Your task to perform on an android device: open app "ZOOM Cloud Meetings" Image 0: 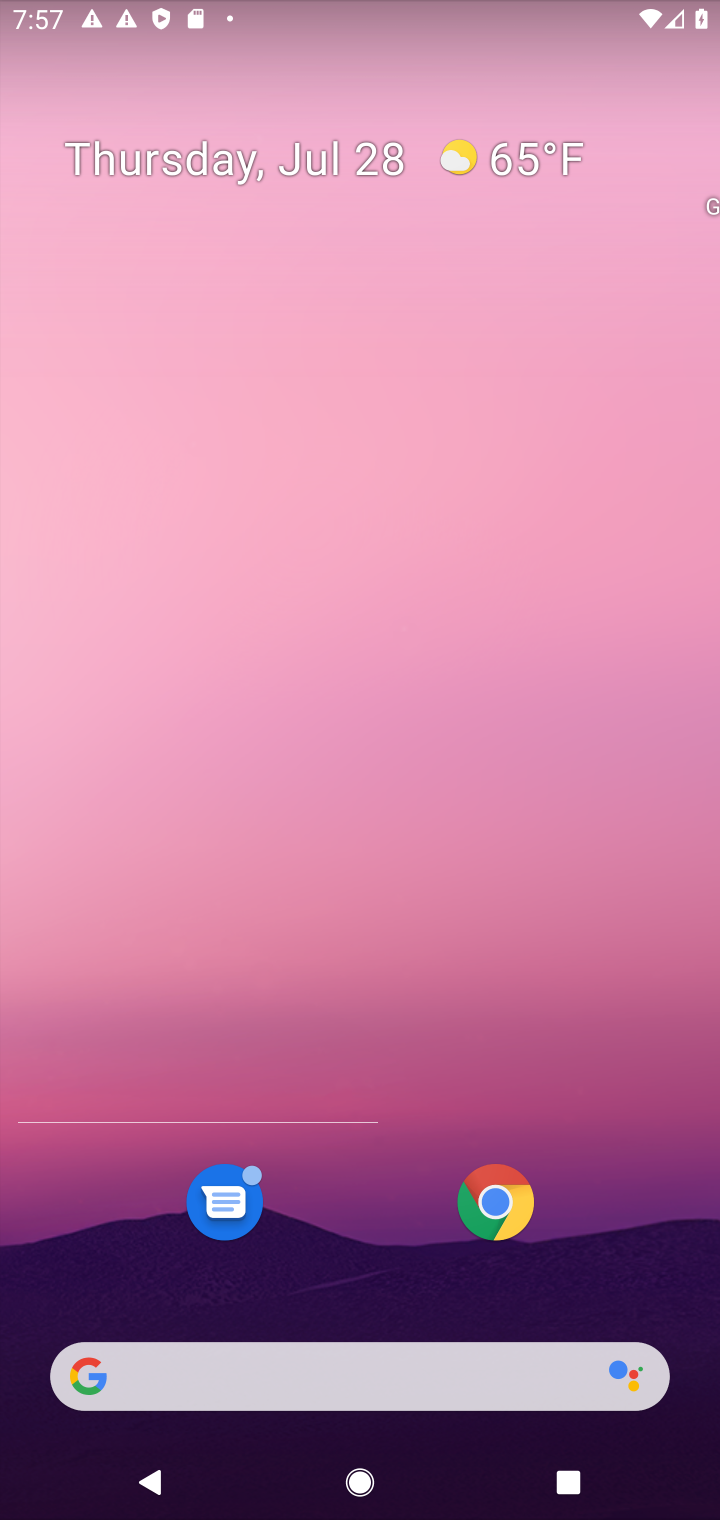
Step 0: press home button
Your task to perform on an android device: open app "ZOOM Cloud Meetings" Image 1: 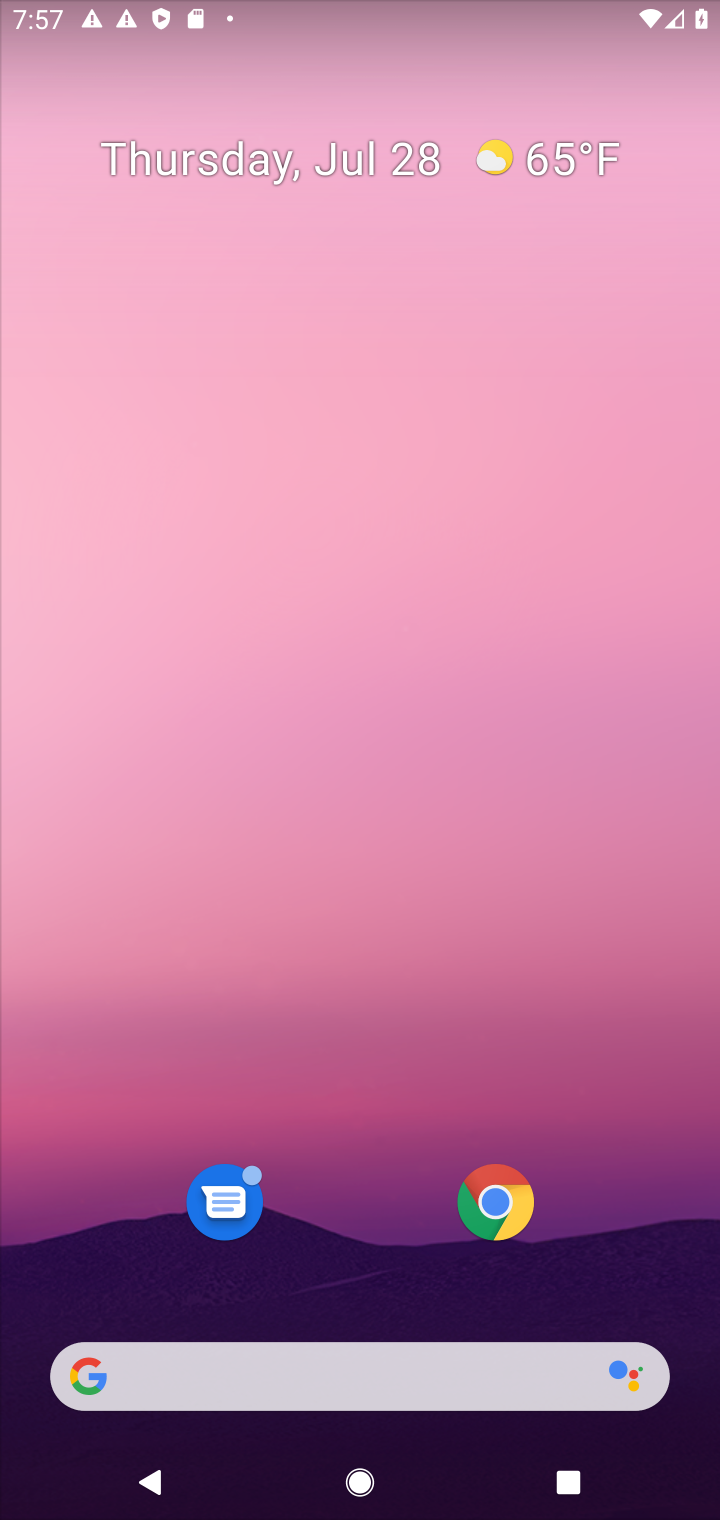
Step 1: drag from (391, 1298) to (533, 115)
Your task to perform on an android device: open app "ZOOM Cloud Meetings" Image 2: 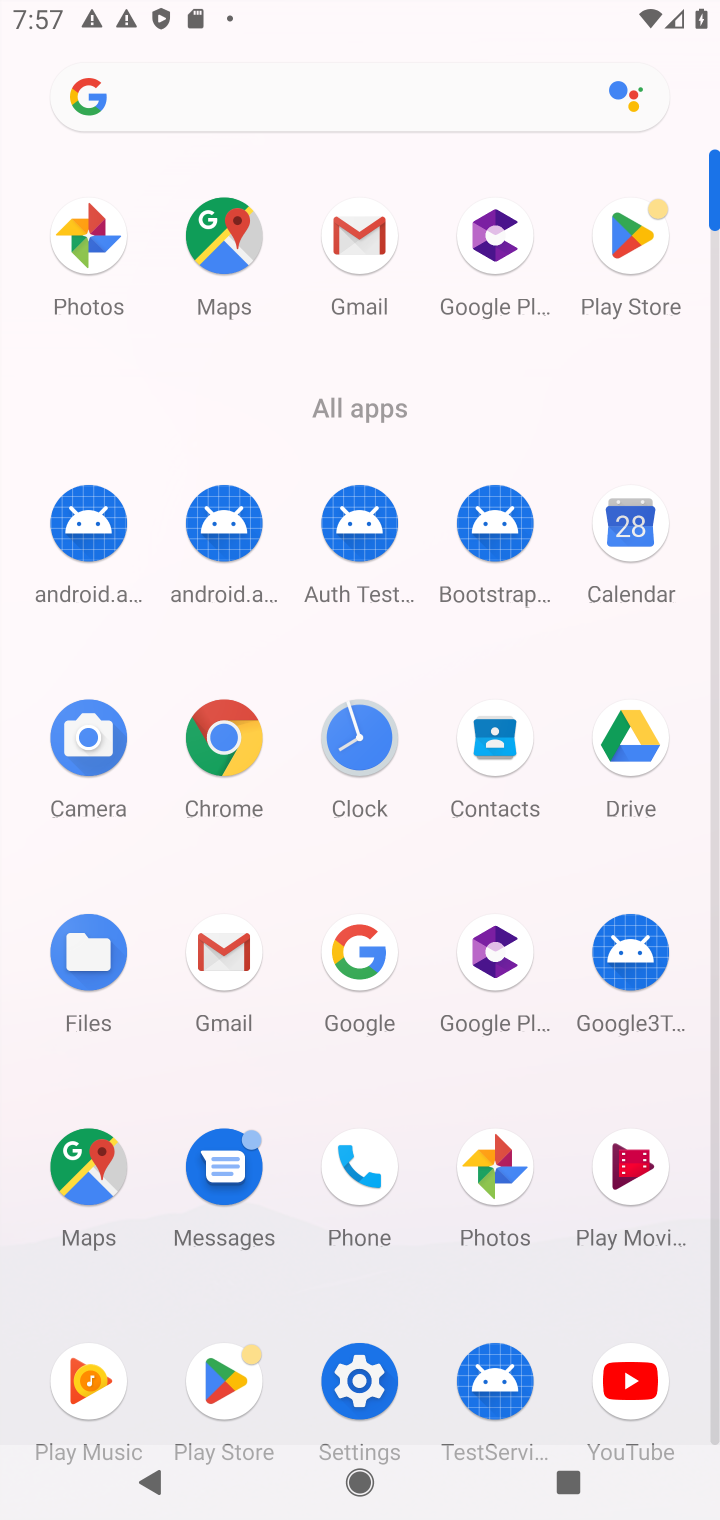
Step 2: click (634, 223)
Your task to perform on an android device: open app "ZOOM Cloud Meetings" Image 3: 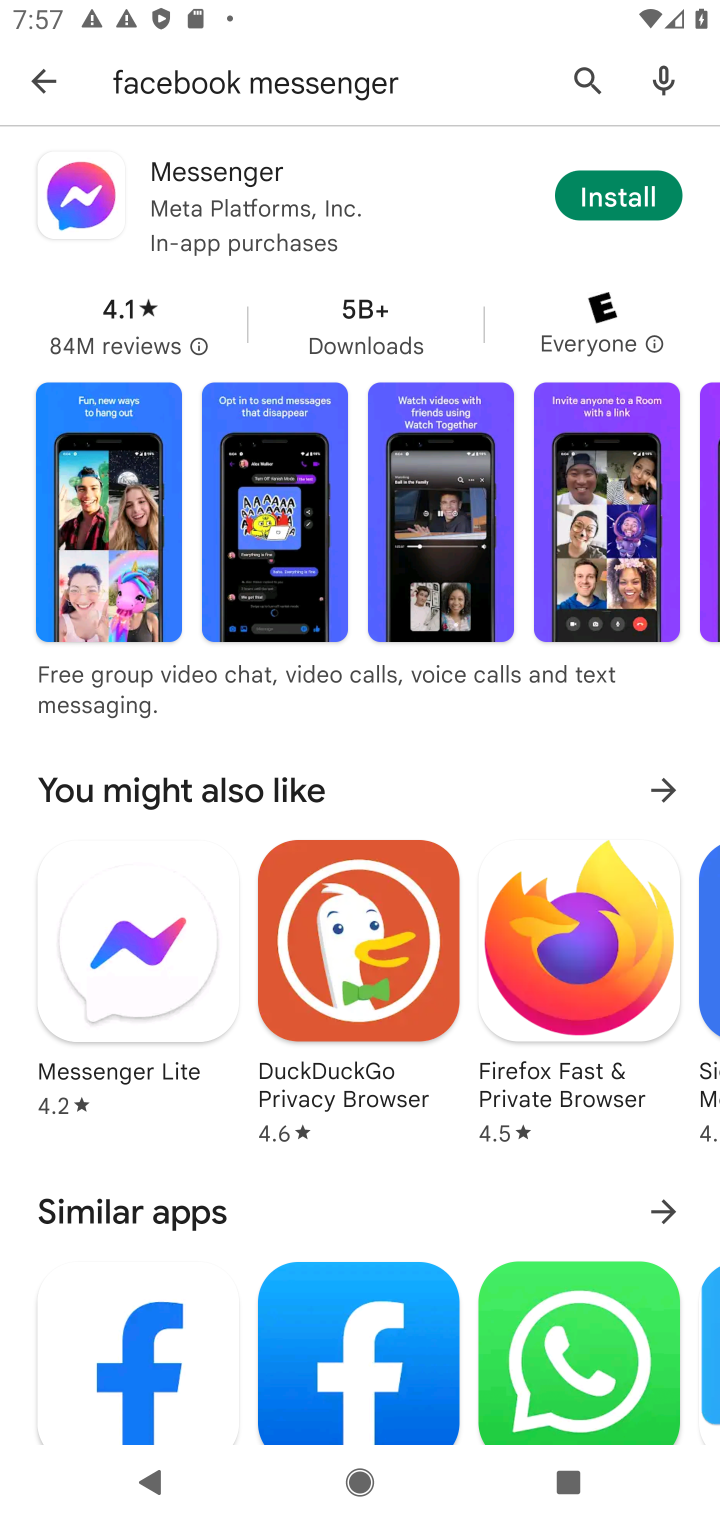
Step 3: click (577, 77)
Your task to perform on an android device: open app "ZOOM Cloud Meetings" Image 4: 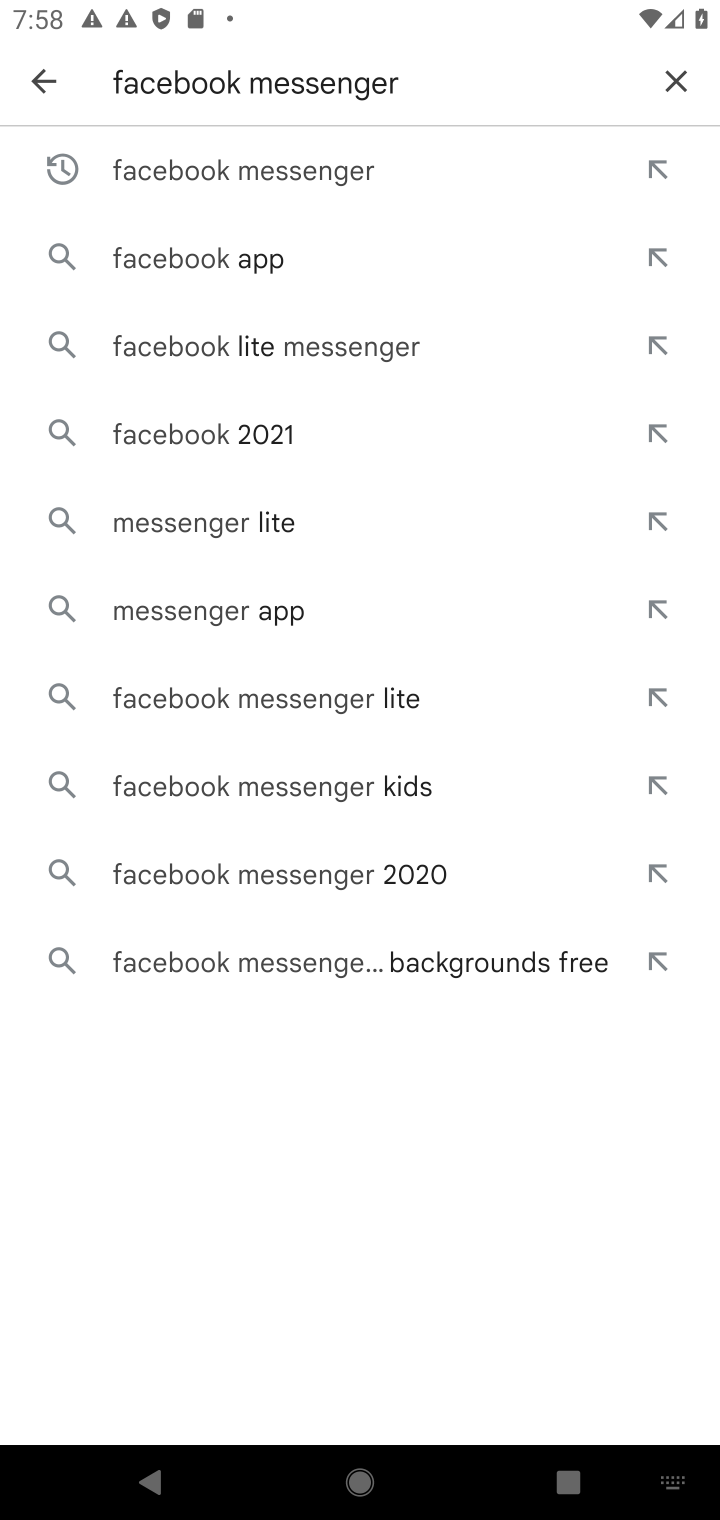
Step 4: click (672, 83)
Your task to perform on an android device: open app "ZOOM Cloud Meetings" Image 5: 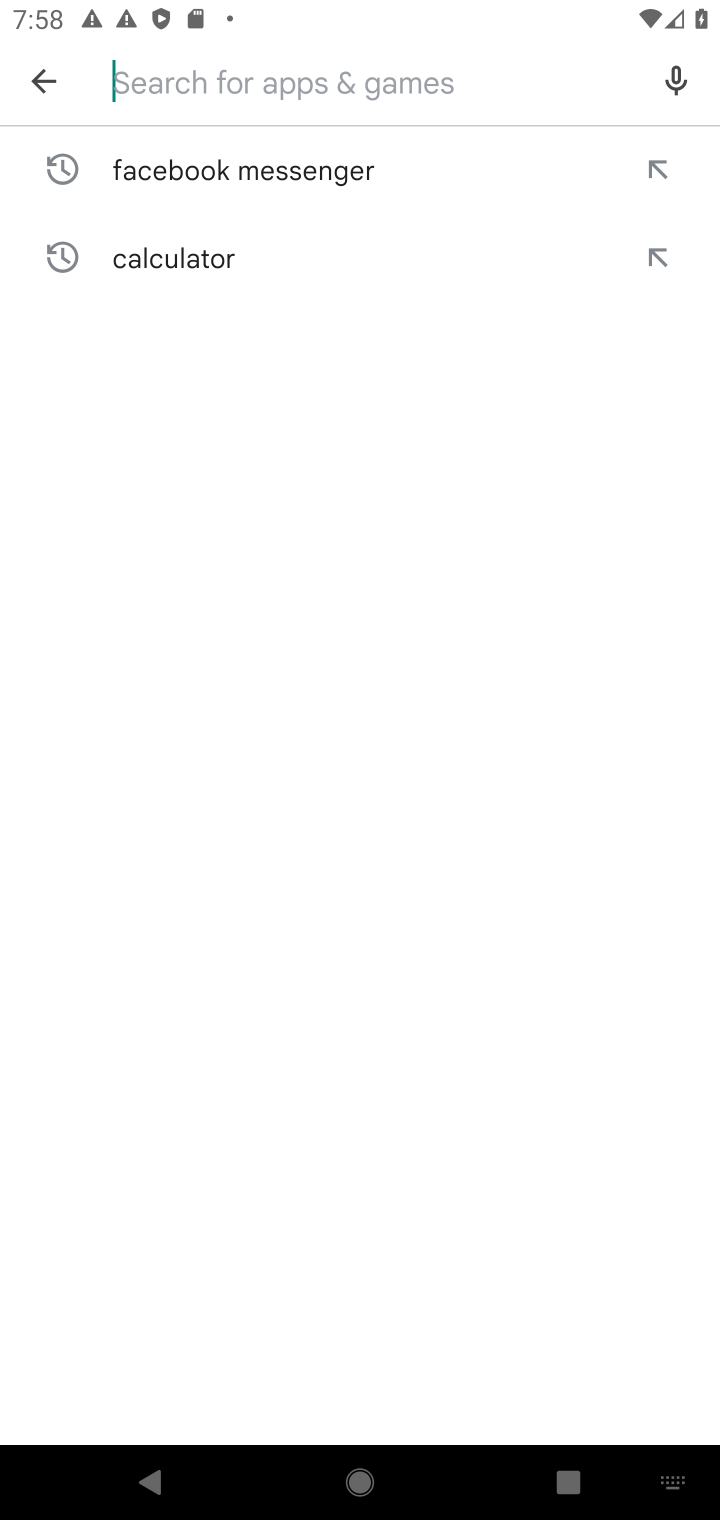
Step 5: type "zoom"
Your task to perform on an android device: open app "ZOOM Cloud Meetings" Image 6: 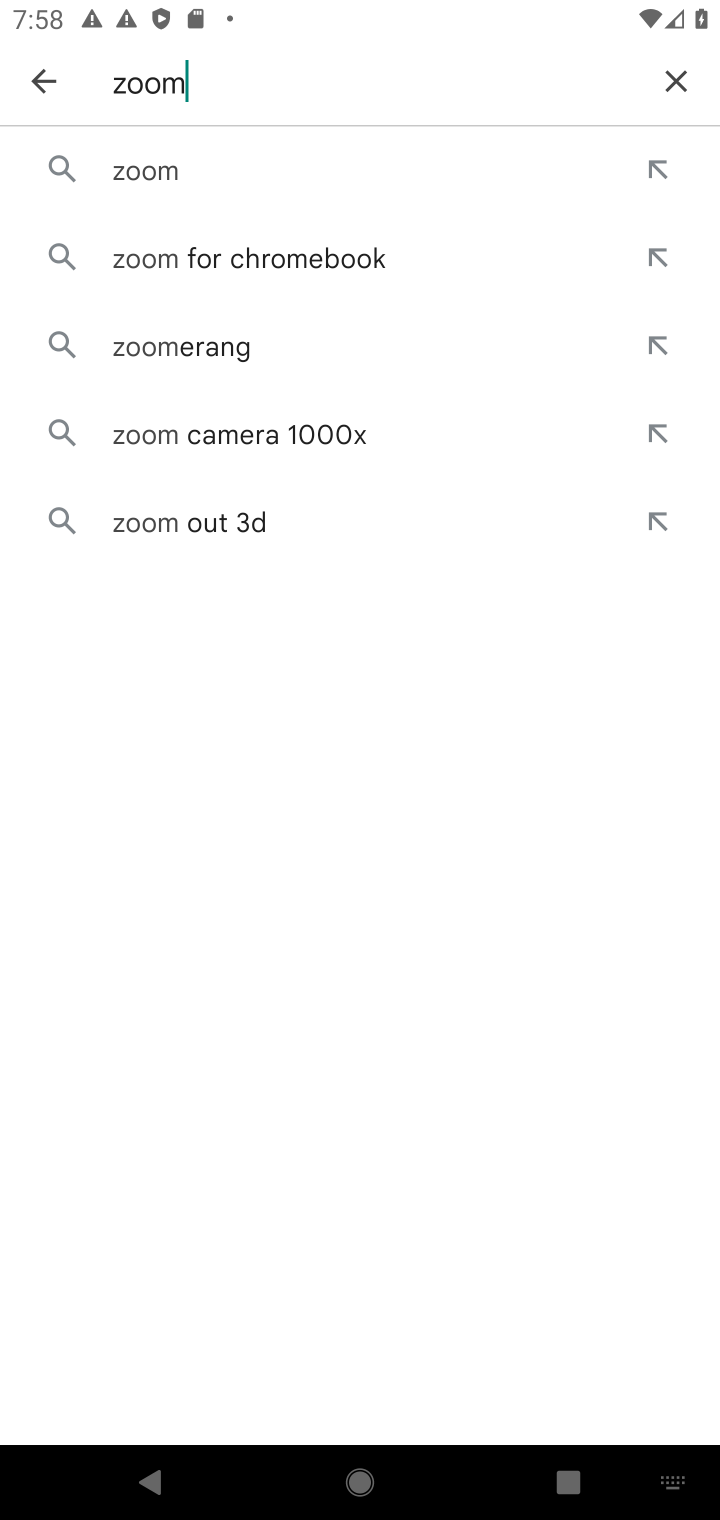
Step 6: click (186, 174)
Your task to perform on an android device: open app "ZOOM Cloud Meetings" Image 7: 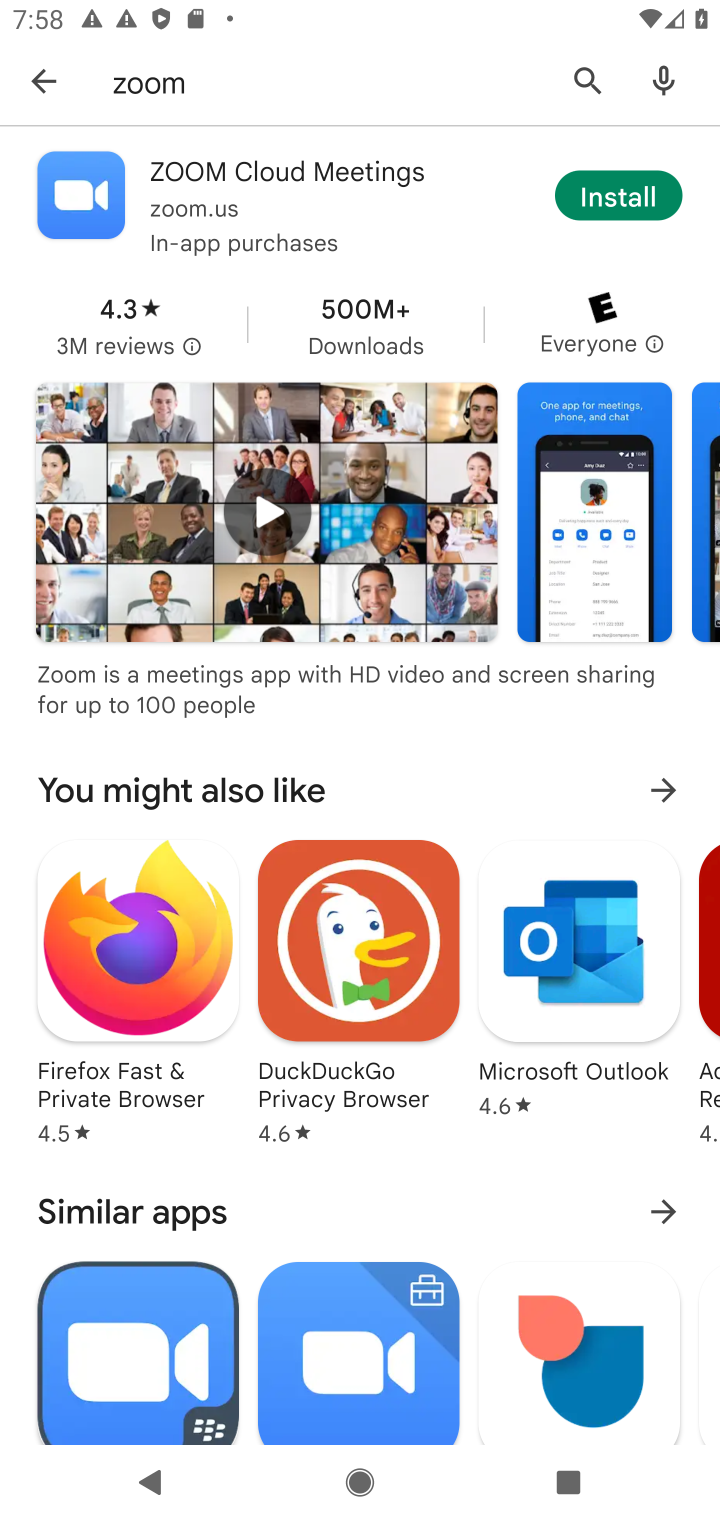
Step 7: click (274, 199)
Your task to perform on an android device: open app "ZOOM Cloud Meetings" Image 8: 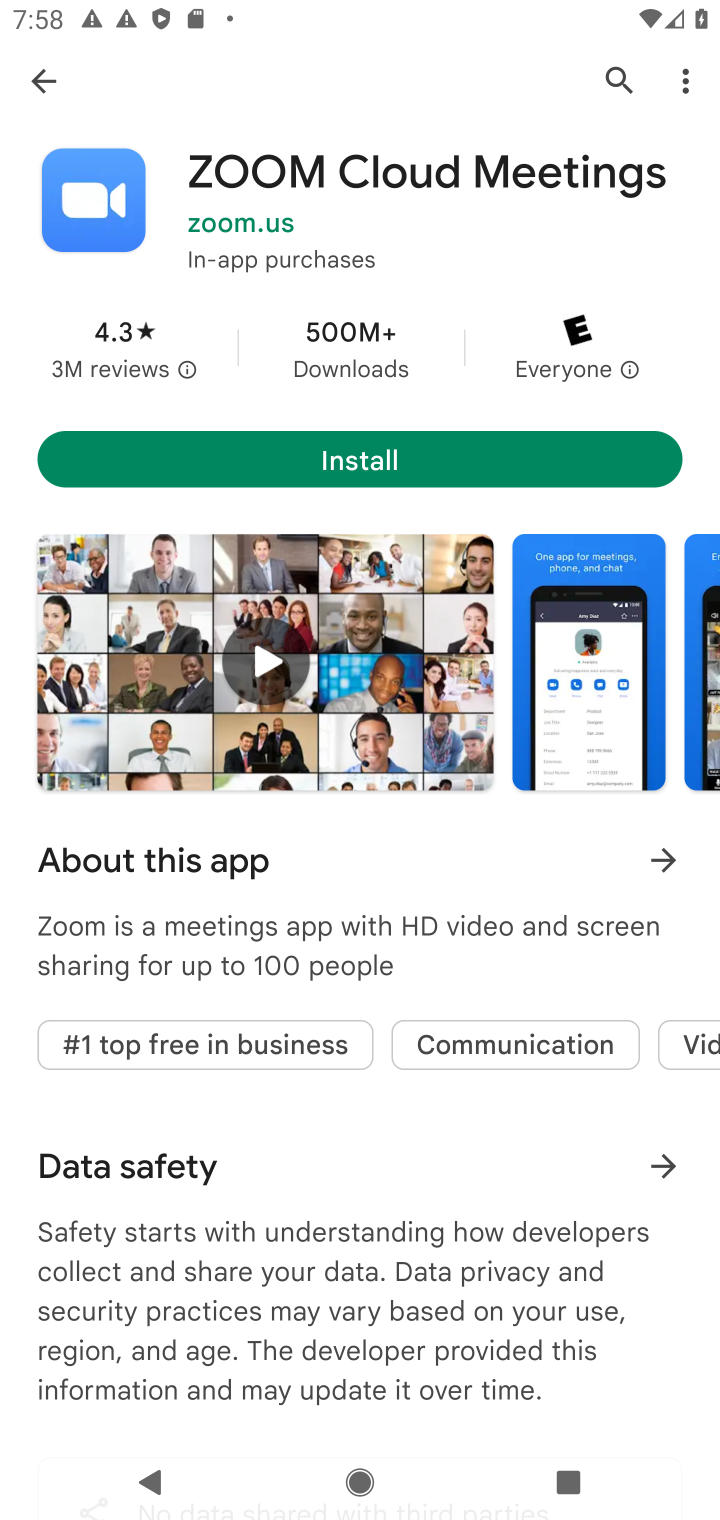
Step 8: task complete